Your task to perform on an android device: What's the weather going to be this weekend? Image 0: 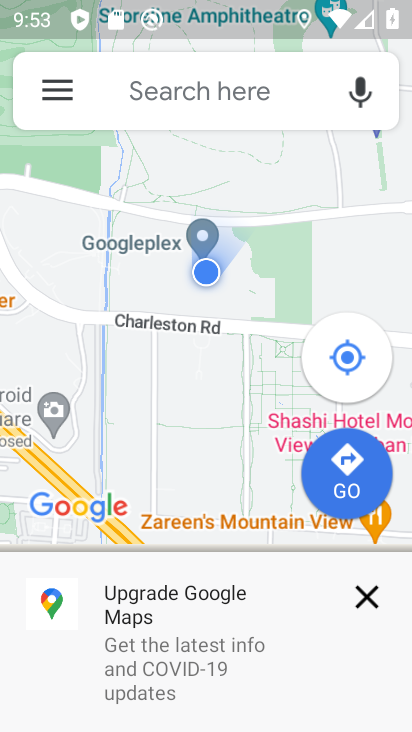
Step 0: press home button
Your task to perform on an android device: What's the weather going to be this weekend? Image 1: 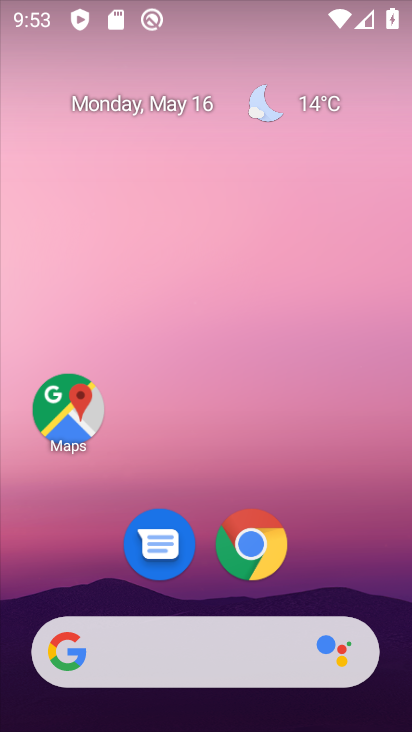
Step 1: drag from (331, 545) to (329, 166)
Your task to perform on an android device: What's the weather going to be this weekend? Image 2: 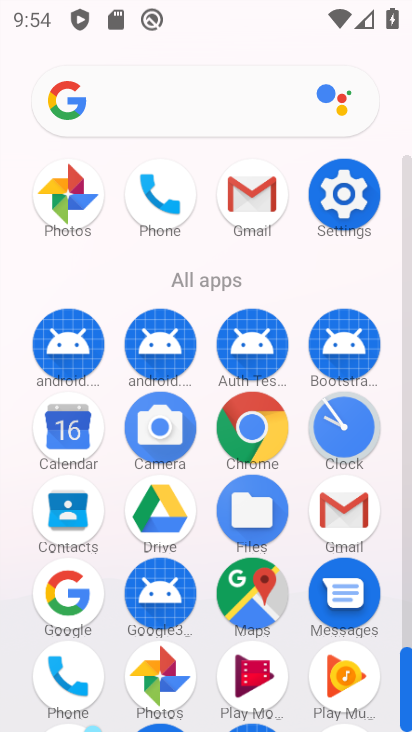
Step 2: click (134, 118)
Your task to perform on an android device: What's the weather going to be this weekend? Image 3: 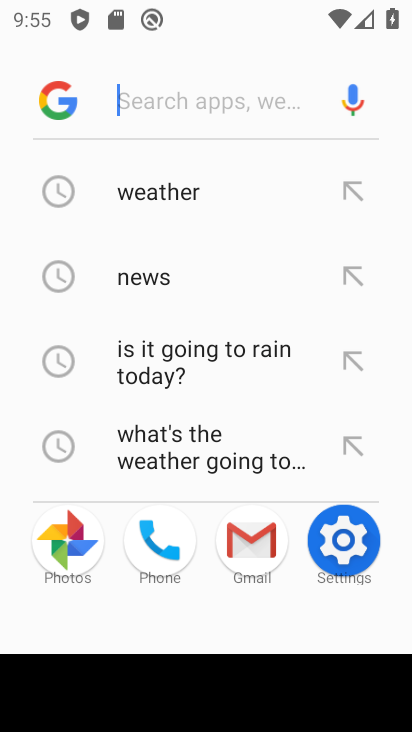
Step 3: type "whats the weather going to be this weekend"
Your task to perform on an android device: What's the weather going to be this weekend? Image 4: 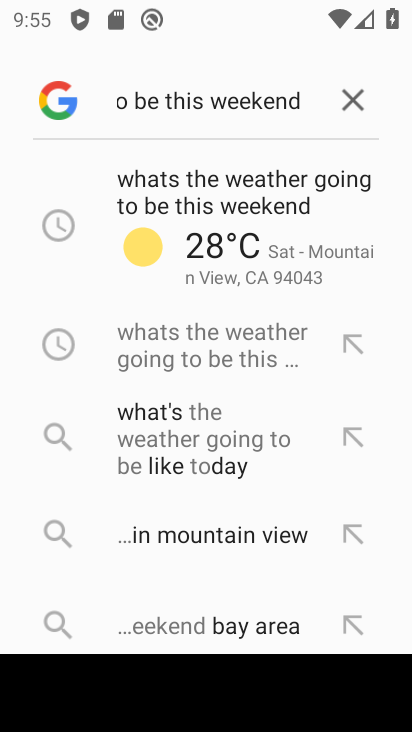
Step 4: click (197, 195)
Your task to perform on an android device: What's the weather going to be this weekend? Image 5: 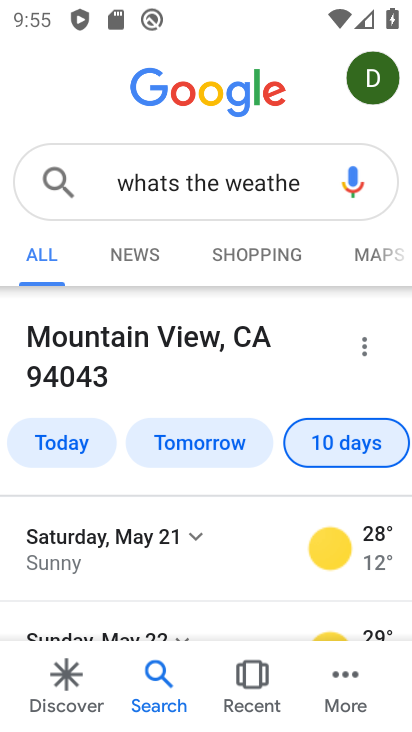
Step 5: task complete